Your task to perform on an android device: What's the weather like in Singapore? Image 0: 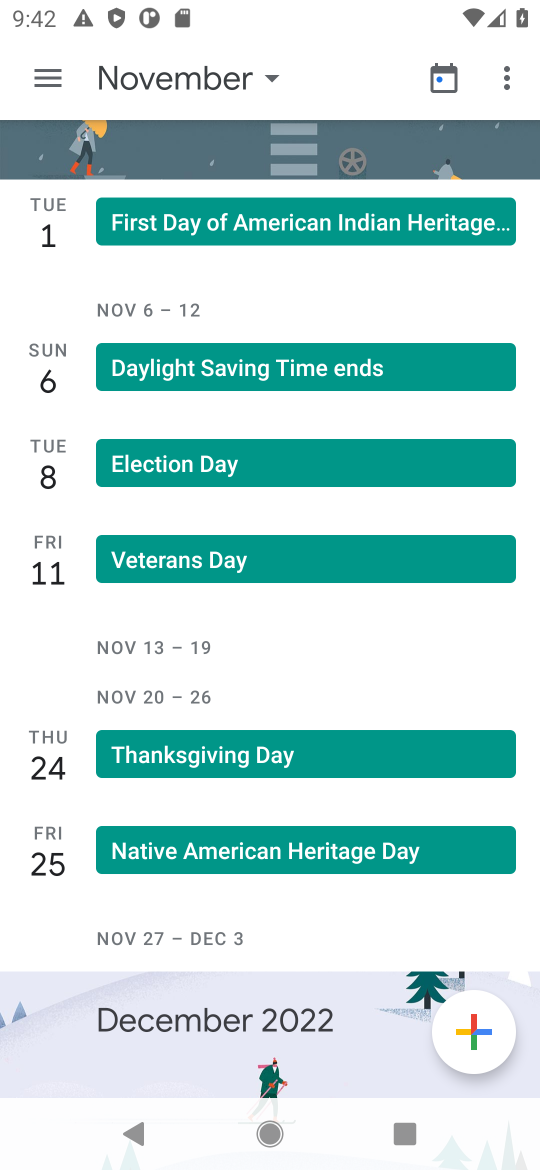
Step 0: press home button
Your task to perform on an android device: What's the weather like in Singapore? Image 1: 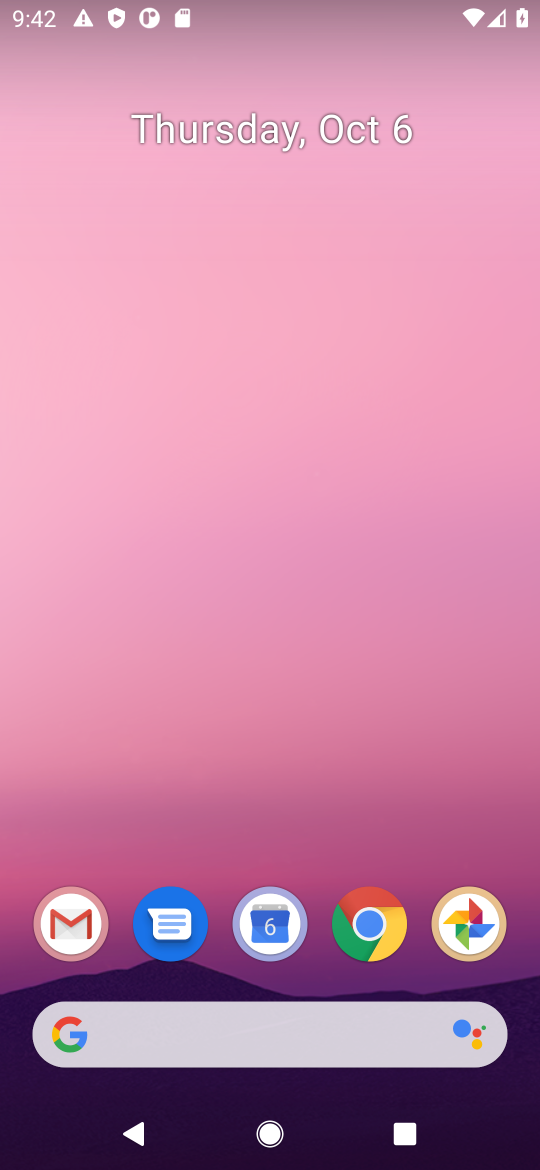
Step 1: click (538, 836)
Your task to perform on an android device: What's the weather like in Singapore? Image 2: 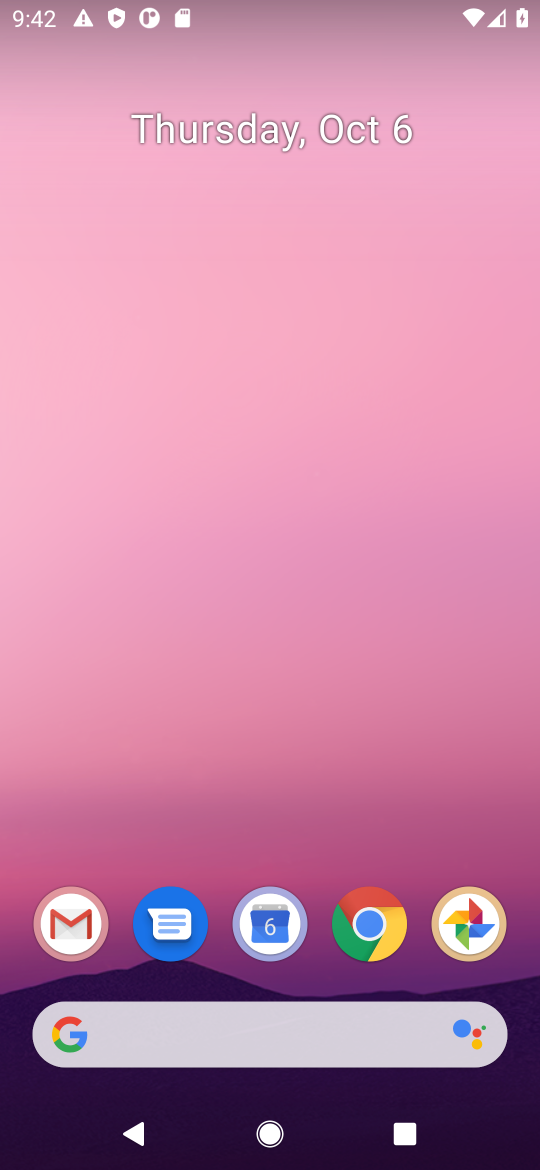
Step 2: click (372, 938)
Your task to perform on an android device: What's the weather like in Singapore? Image 3: 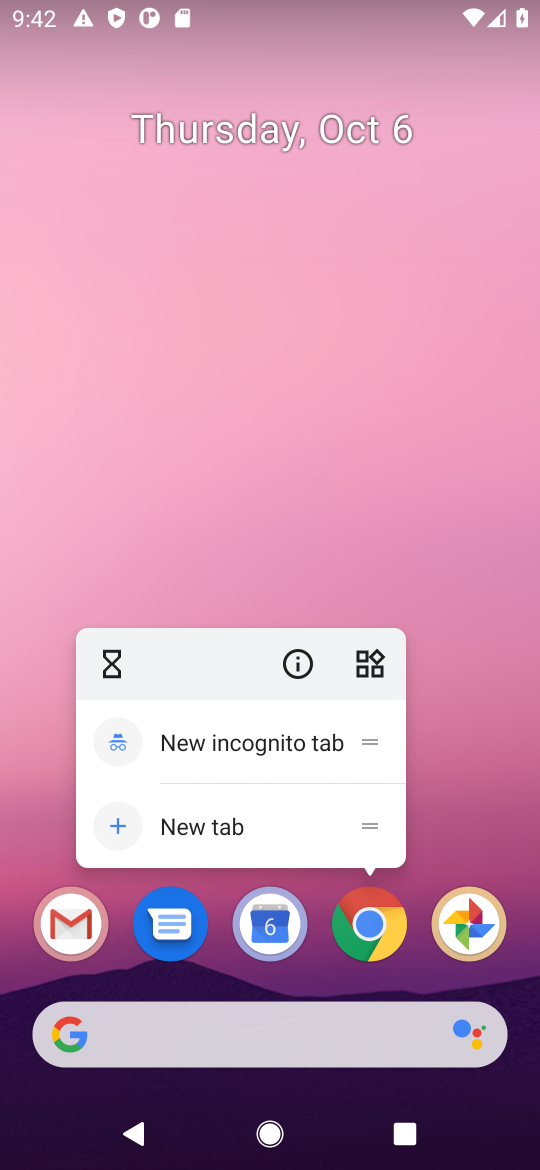
Step 3: click (372, 928)
Your task to perform on an android device: What's the weather like in Singapore? Image 4: 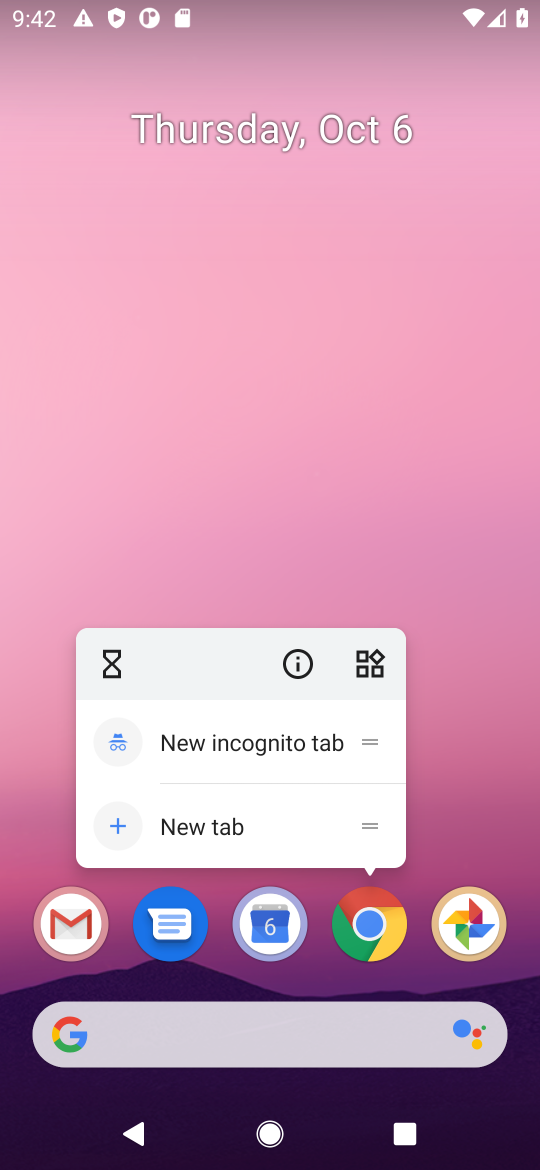
Step 4: click (366, 931)
Your task to perform on an android device: What's the weather like in Singapore? Image 5: 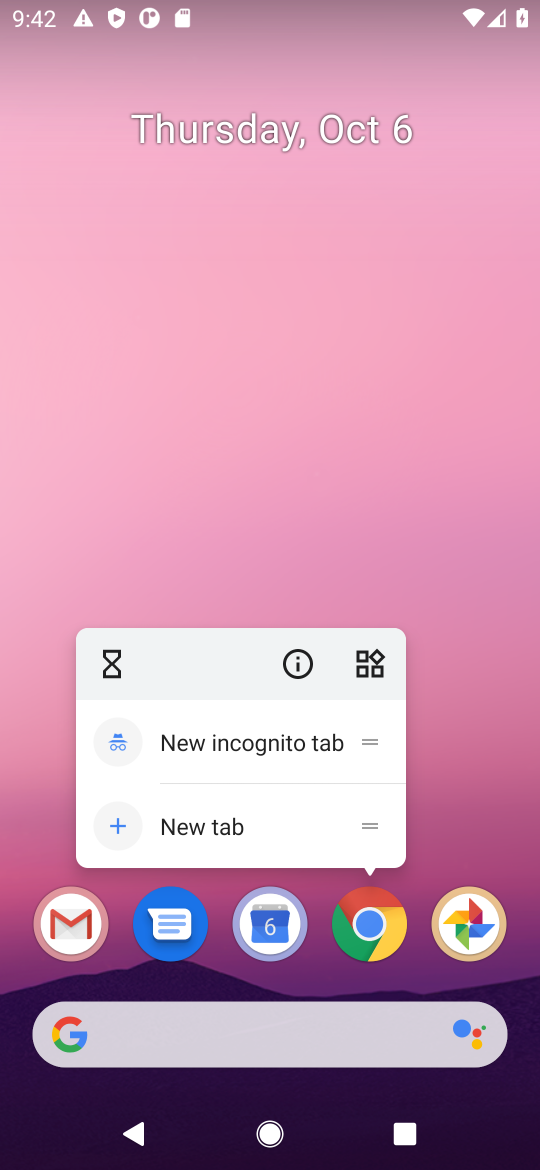
Step 5: click (364, 929)
Your task to perform on an android device: What's the weather like in Singapore? Image 6: 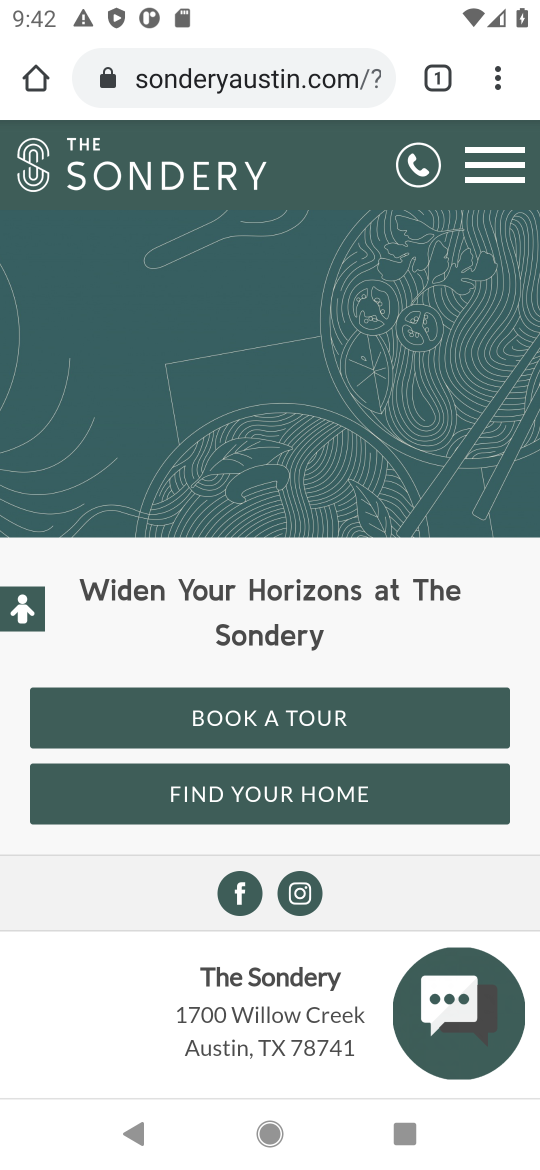
Step 6: click (298, 80)
Your task to perform on an android device: What's the weather like in Singapore? Image 7: 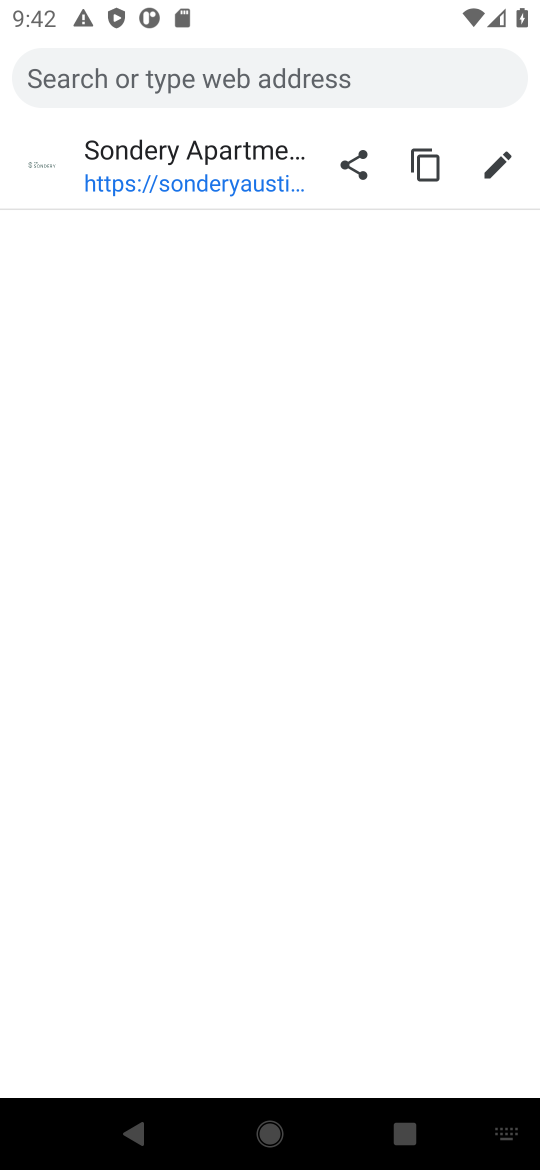
Step 7: type "weather like in Singapore"
Your task to perform on an android device: What's the weather like in Singapore? Image 8: 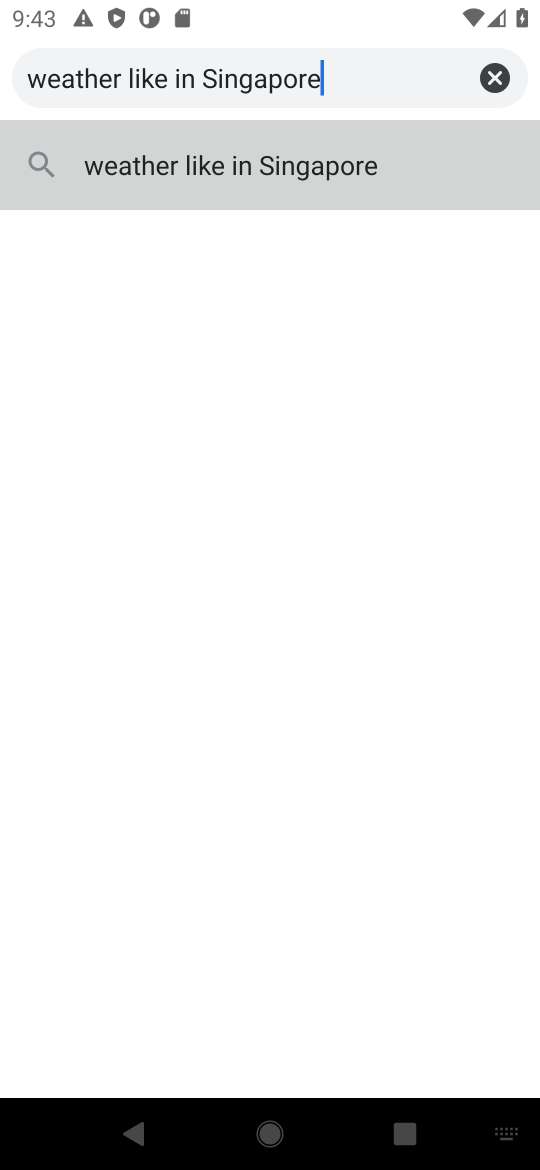
Step 8: click (266, 171)
Your task to perform on an android device: What's the weather like in Singapore? Image 9: 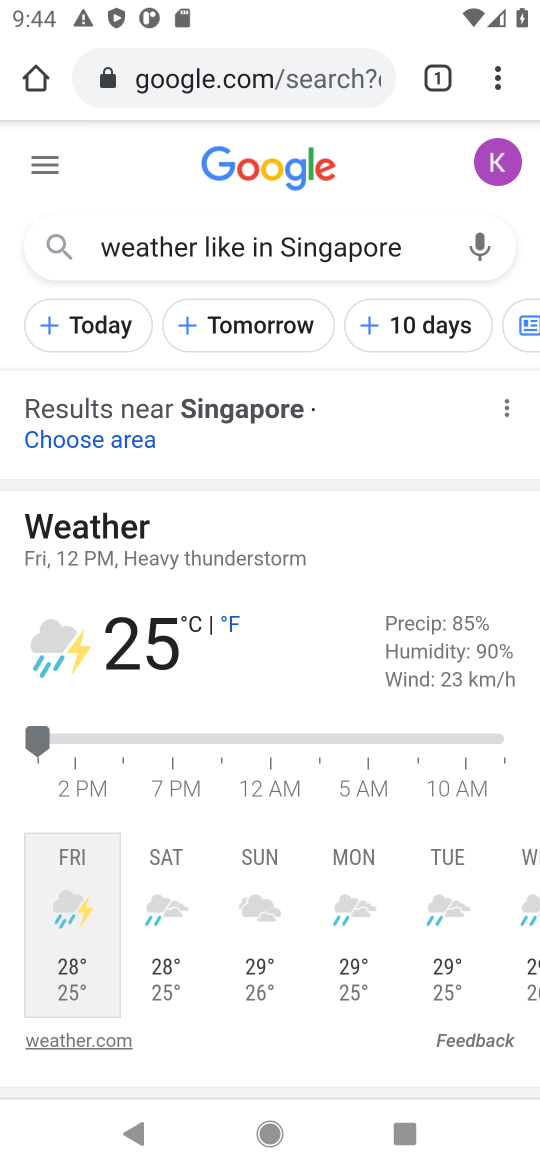
Step 9: task complete